Your task to perform on an android device: What's the speed of light? Image 0: 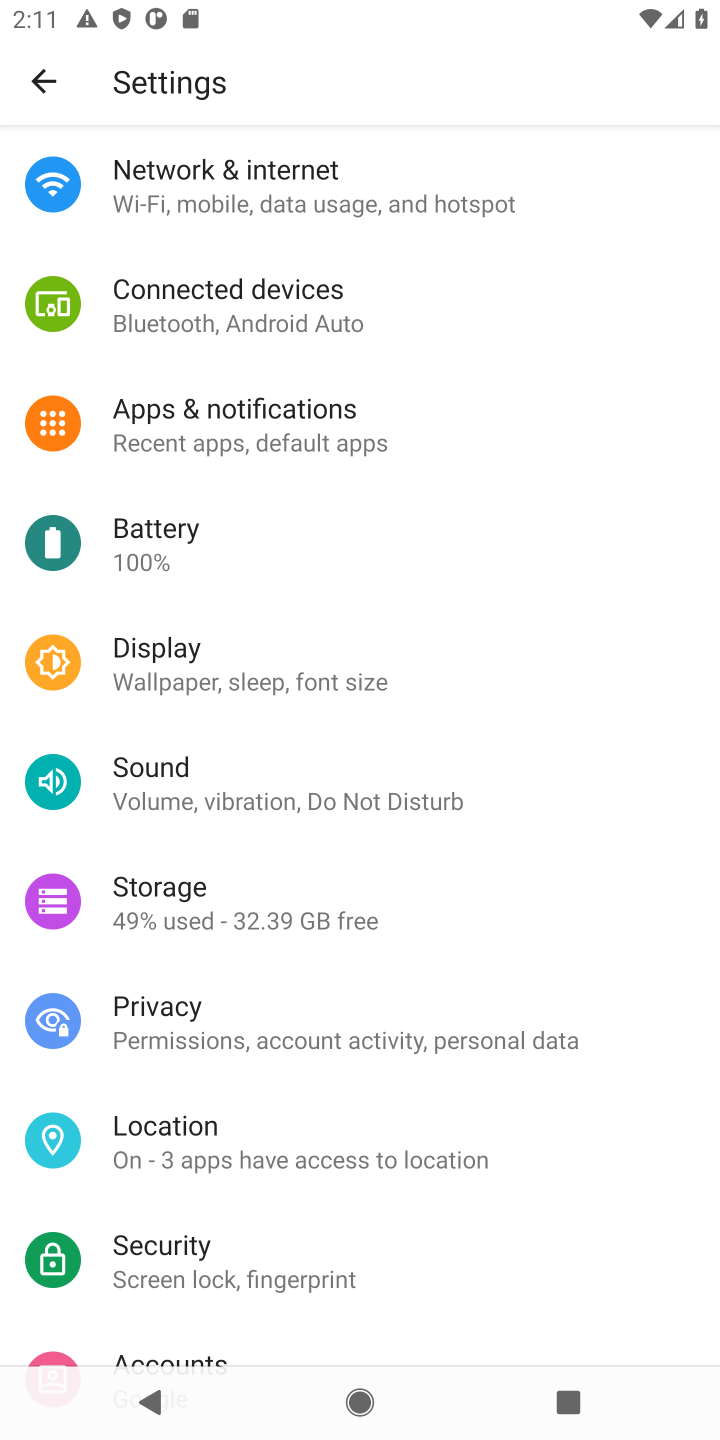
Step 0: press home button
Your task to perform on an android device: What's the speed of light? Image 1: 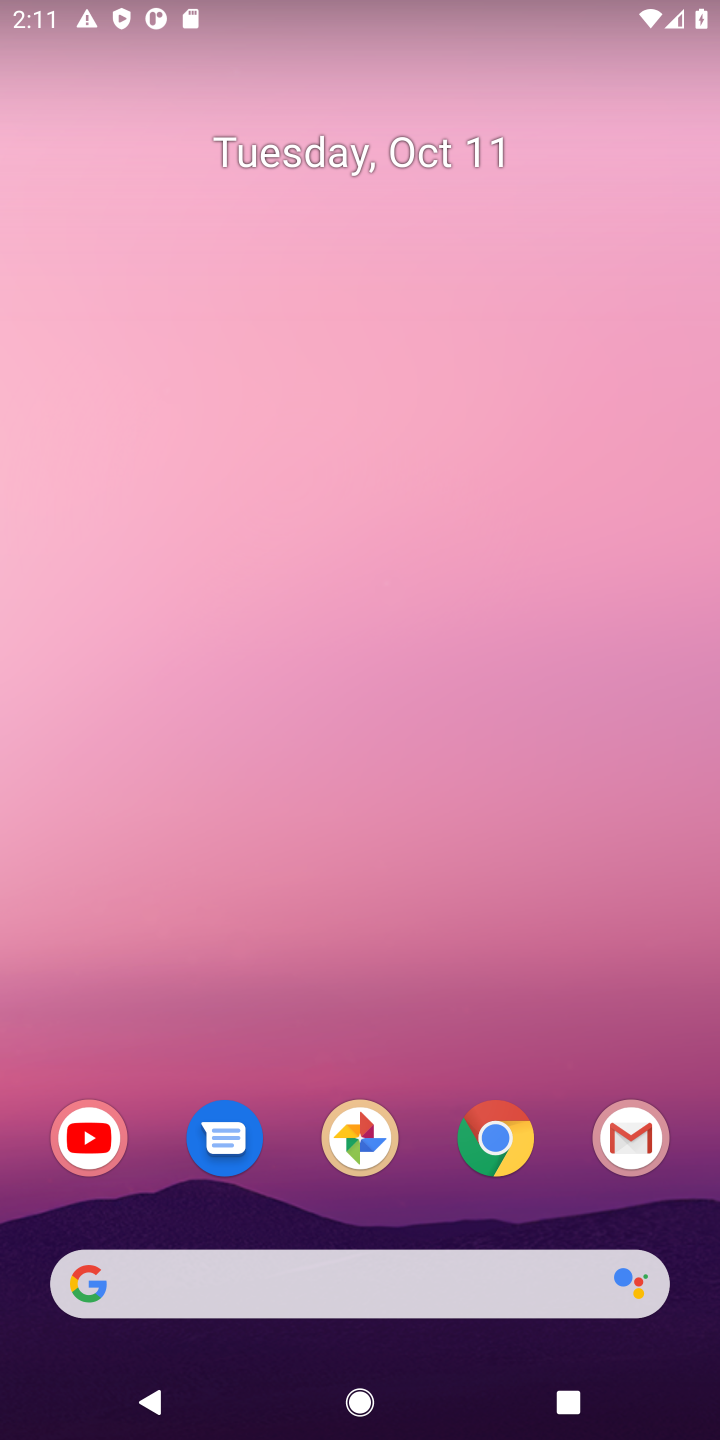
Step 1: drag from (433, 1069) to (374, 213)
Your task to perform on an android device: What's the speed of light? Image 2: 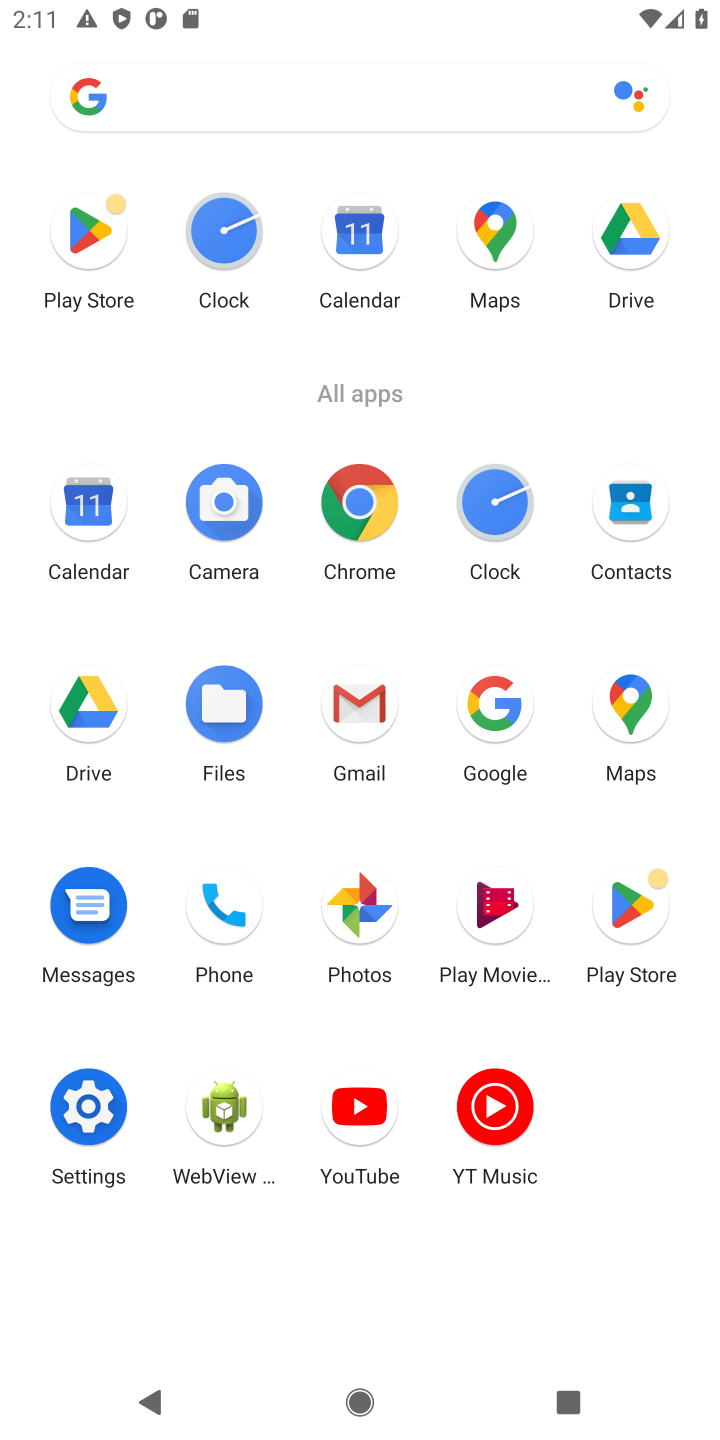
Step 2: click (356, 513)
Your task to perform on an android device: What's the speed of light? Image 3: 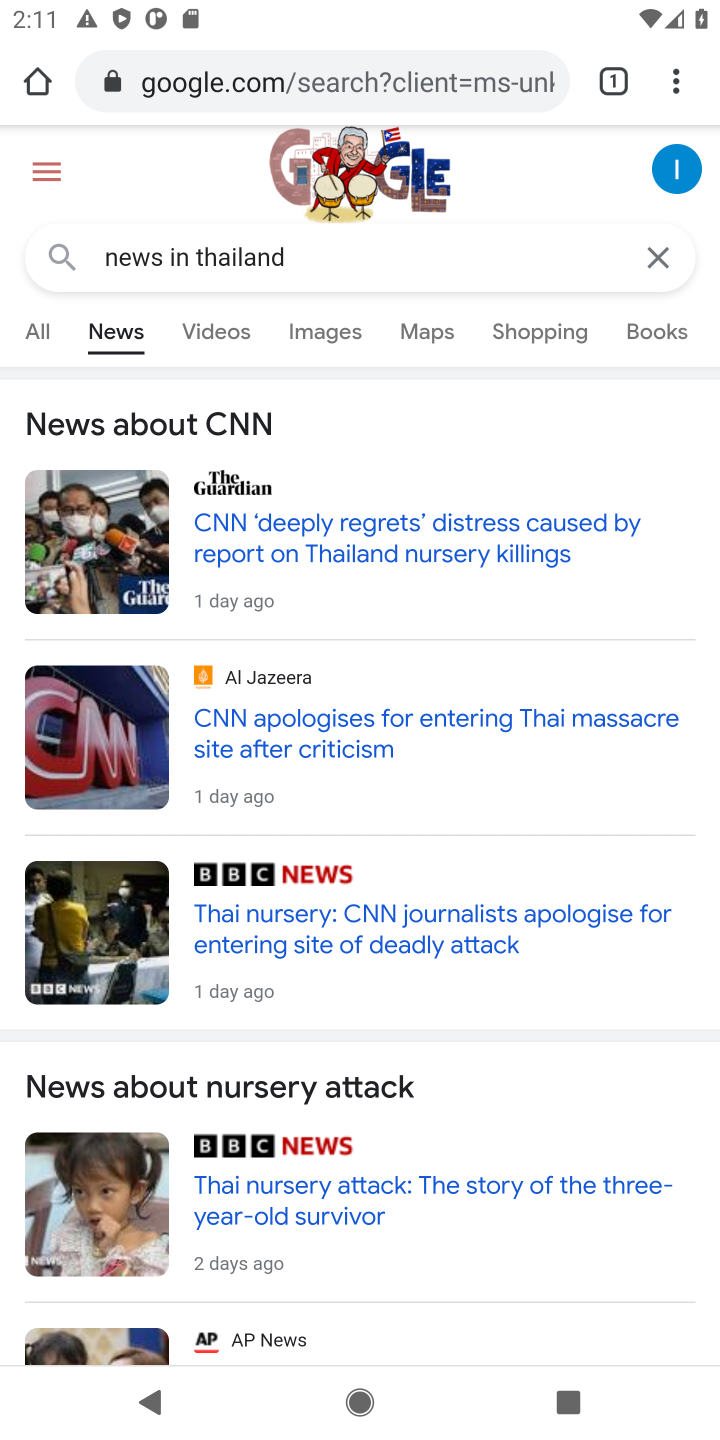
Step 3: click (394, 93)
Your task to perform on an android device: What's the speed of light? Image 4: 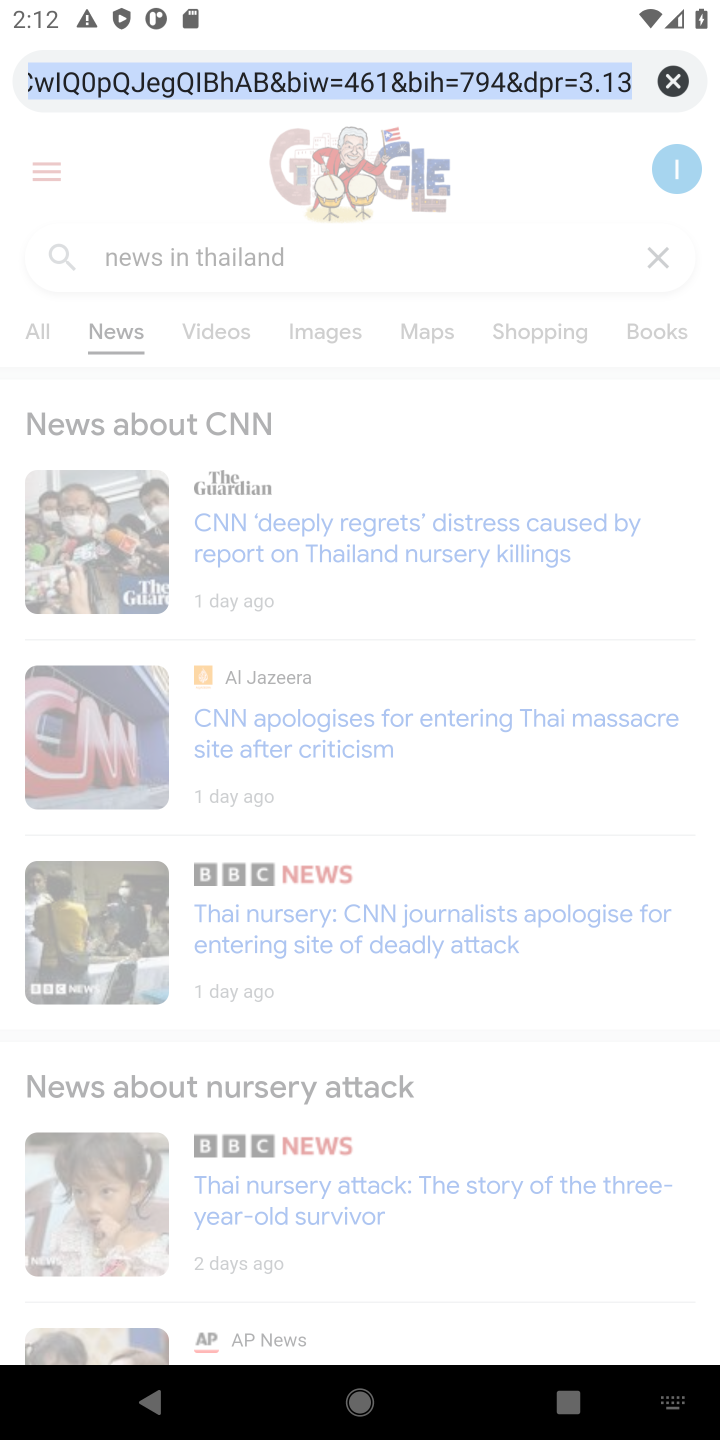
Step 4: type "speed of light"
Your task to perform on an android device: What's the speed of light? Image 5: 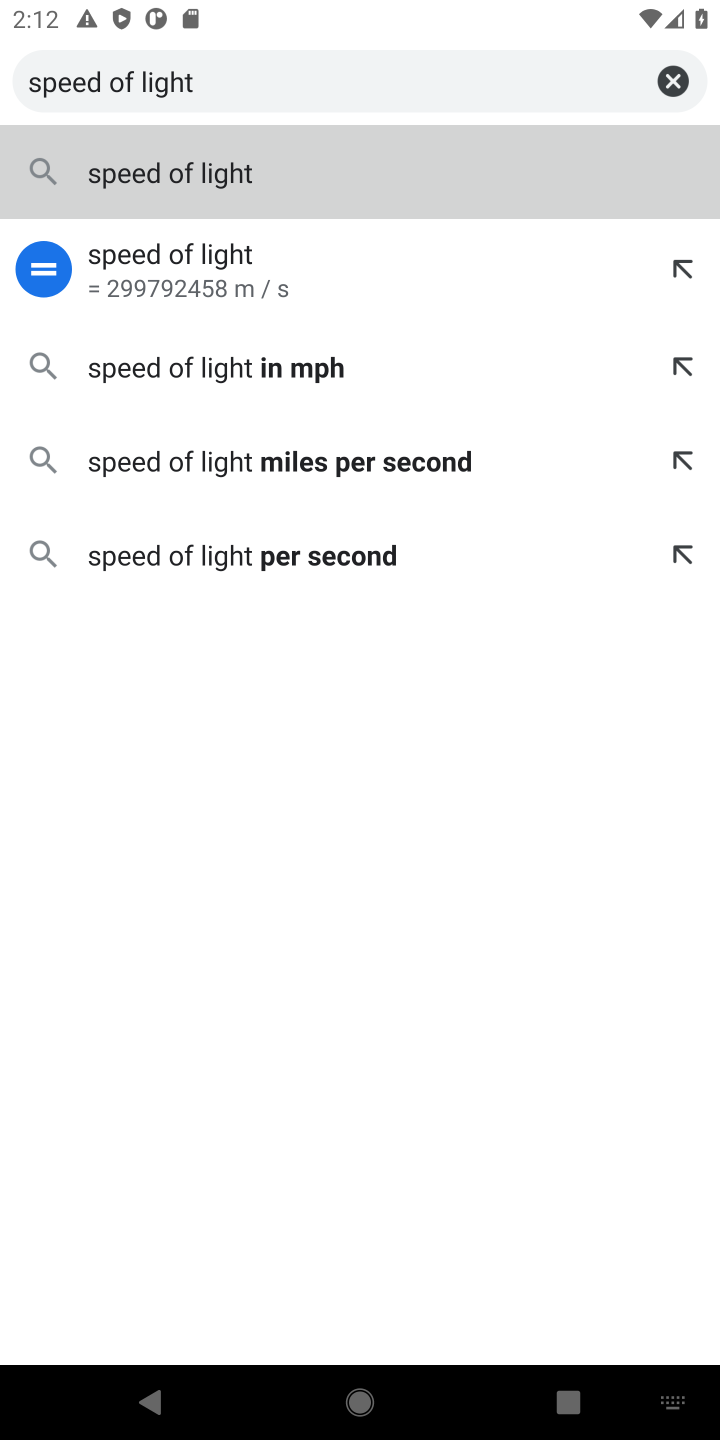
Step 5: click (517, 194)
Your task to perform on an android device: What's the speed of light? Image 6: 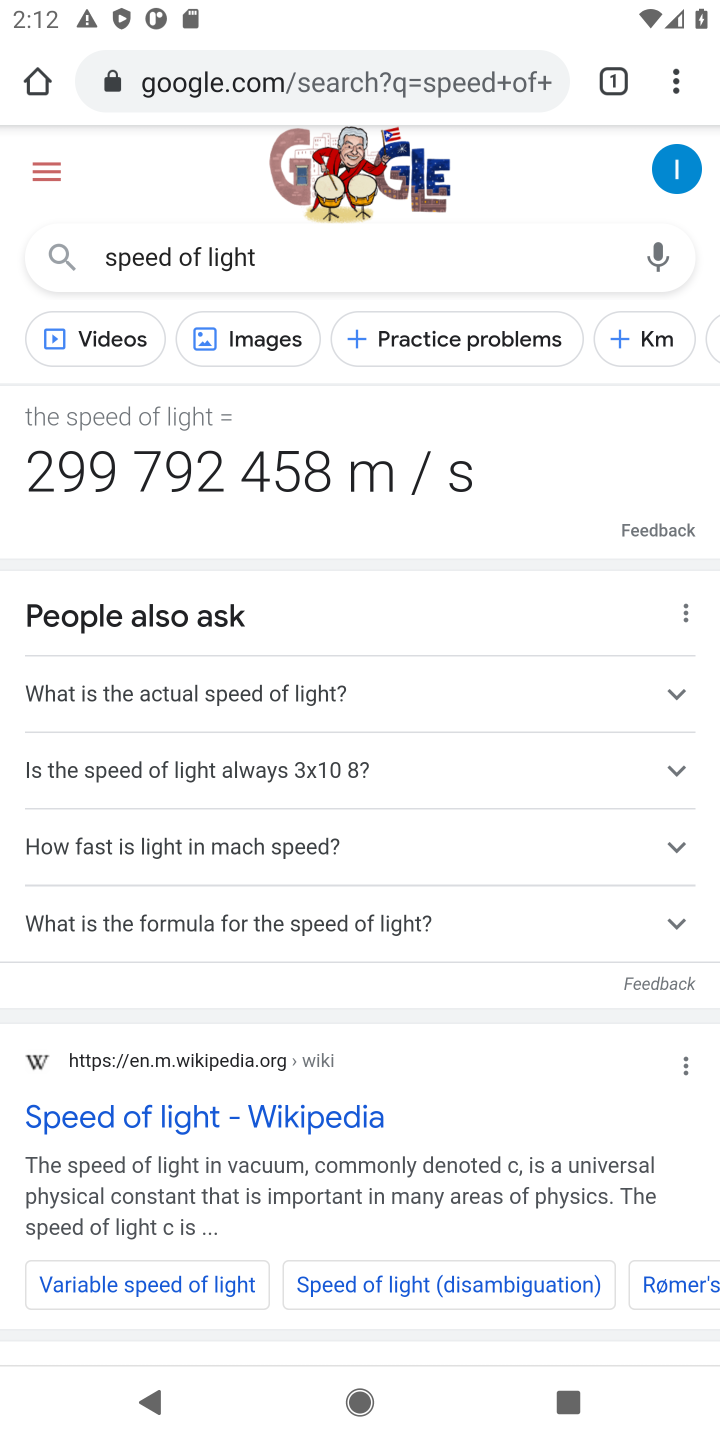
Step 6: task complete